Your task to perform on an android device: Go to Amazon Image 0: 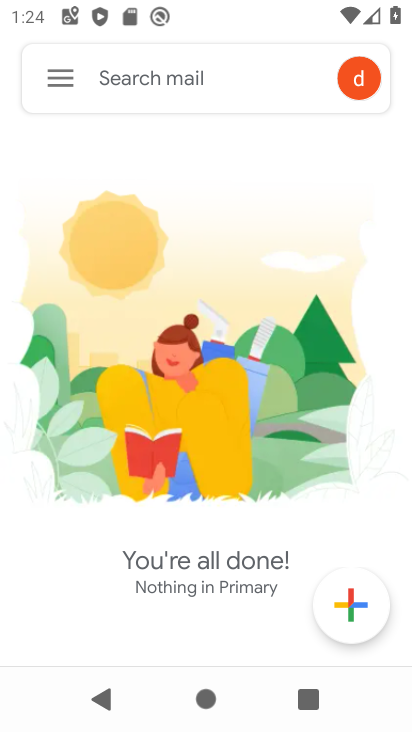
Step 0: press back button
Your task to perform on an android device: Go to Amazon Image 1: 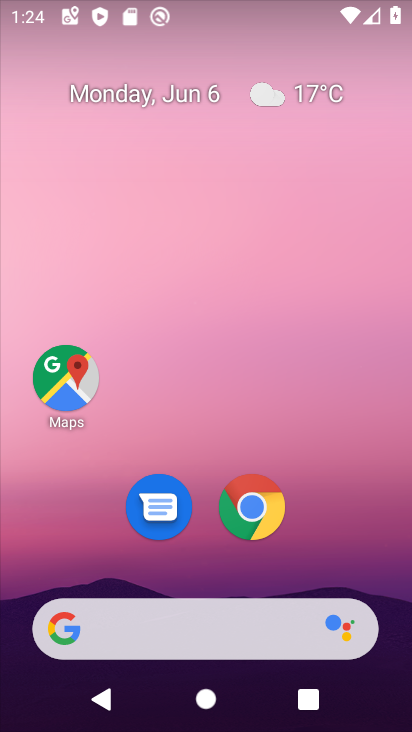
Step 1: drag from (328, 496) to (252, 26)
Your task to perform on an android device: Go to Amazon Image 2: 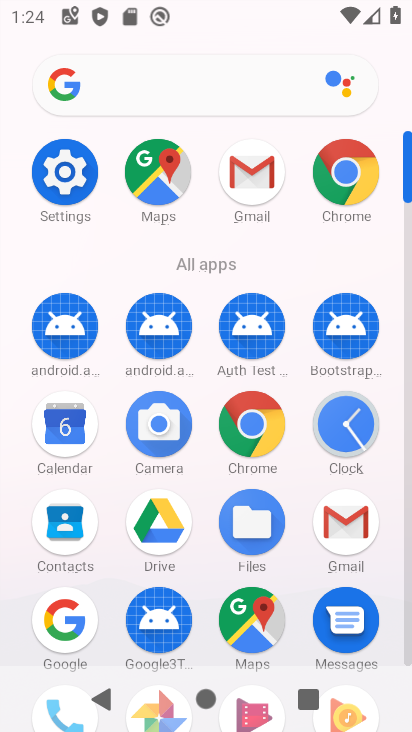
Step 2: click (344, 171)
Your task to perform on an android device: Go to Amazon Image 3: 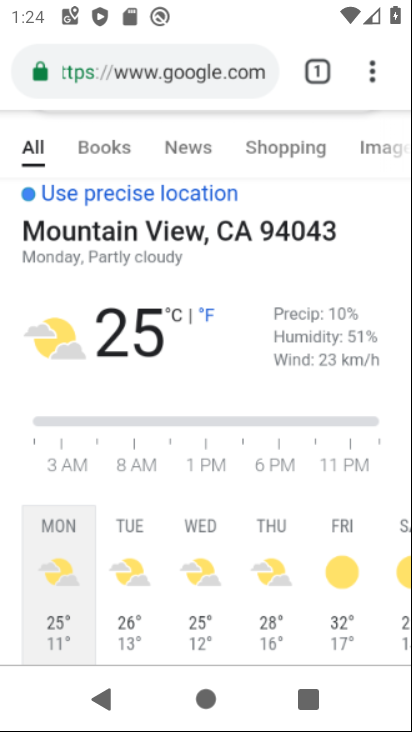
Step 3: click (142, 58)
Your task to perform on an android device: Go to Amazon Image 4: 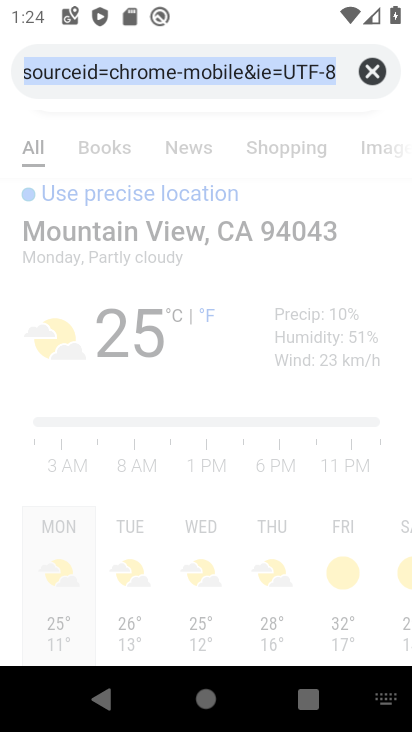
Step 4: click (373, 70)
Your task to perform on an android device: Go to Amazon Image 5: 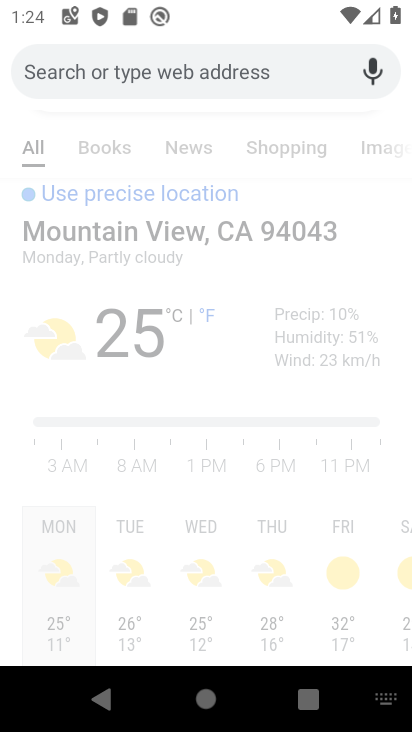
Step 5: type "Amazon"
Your task to perform on an android device: Go to Amazon Image 6: 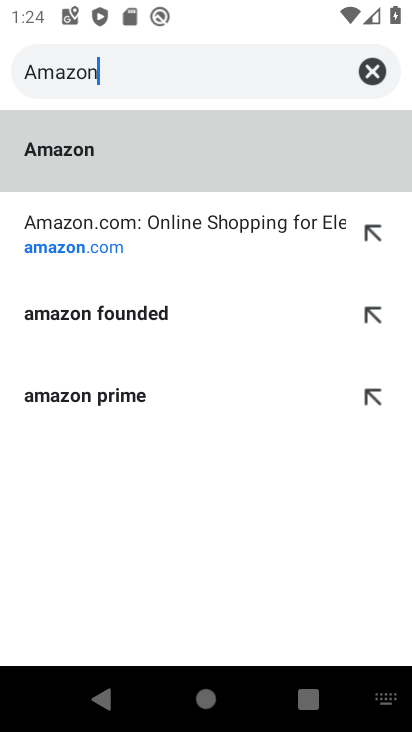
Step 6: type ""
Your task to perform on an android device: Go to Amazon Image 7: 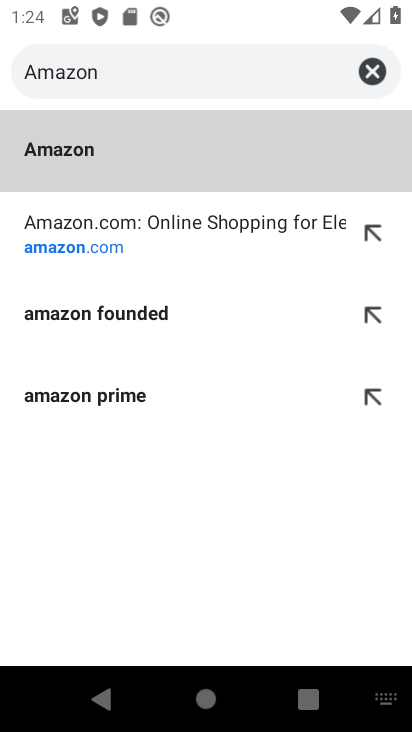
Step 7: click (67, 249)
Your task to perform on an android device: Go to Amazon Image 8: 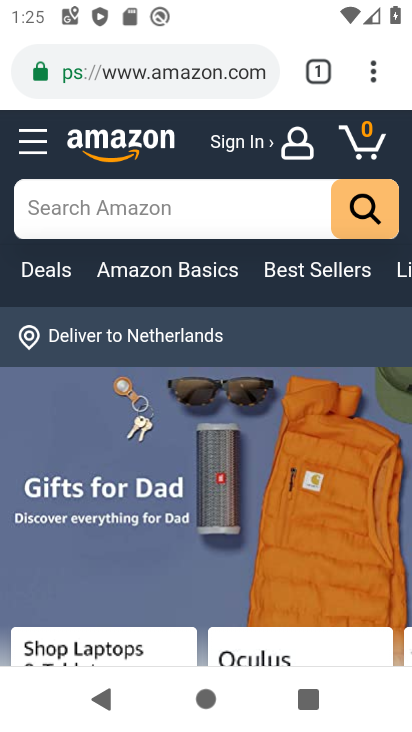
Step 8: task complete